Your task to perform on an android device: When is my next meeting? Image 0: 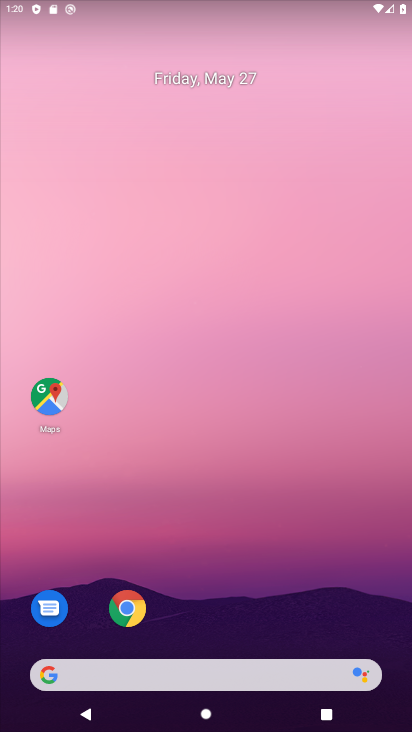
Step 0: drag from (367, 624) to (308, 120)
Your task to perform on an android device: When is my next meeting? Image 1: 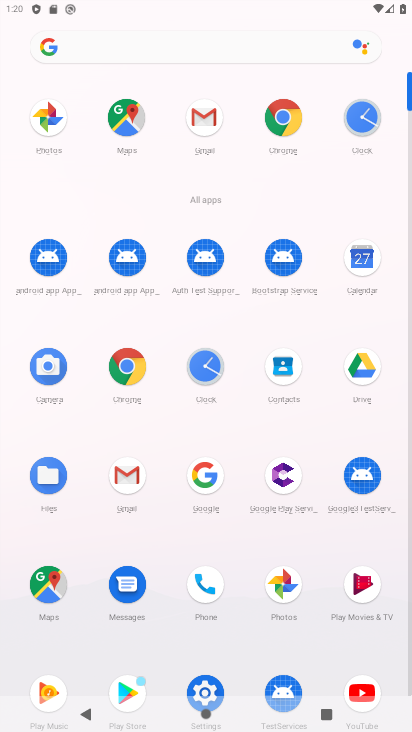
Step 1: click (411, 684)
Your task to perform on an android device: When is my next meeting? Image 2: 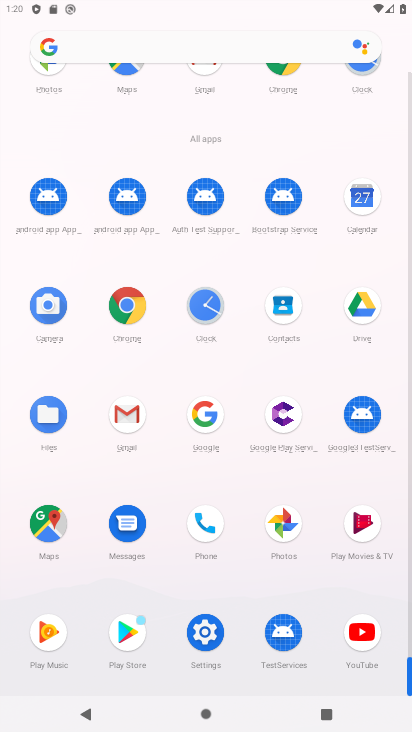
Step 2: click (361, 195)
Your task to perform on an android device: When is my next meeting? Image 3: 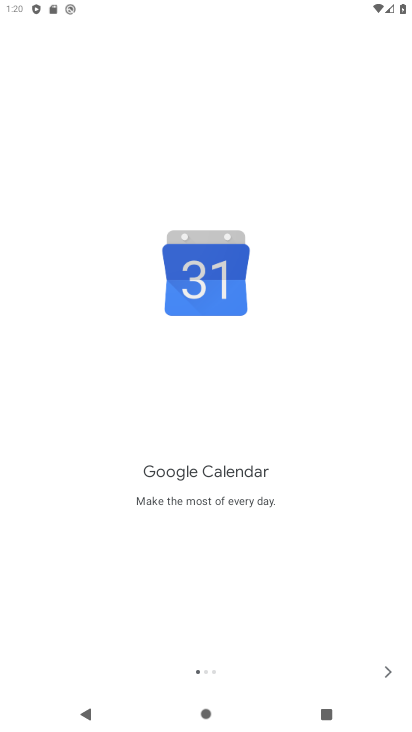
Step 3: click (384, 670)
Your task to perform on an android device: When is my next meeting? Image 4: 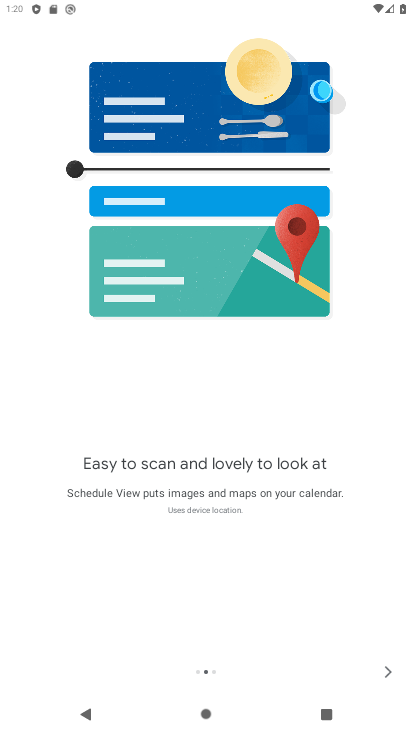
Step 4: click (384, 670)
Your task to perform on an android device: When is my next meeting? Image 5: 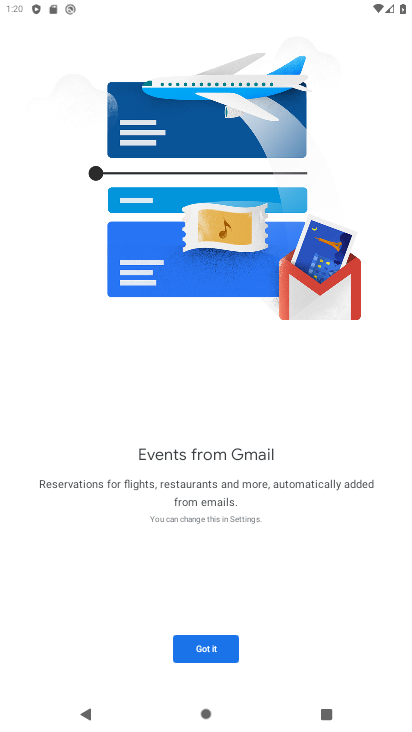
Step 5: click (193, 645)
Your task to perform on an android device: When is my next meeting? Image 6: 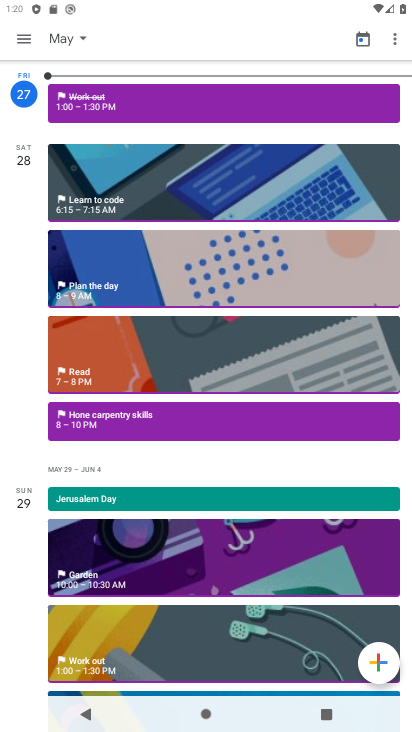
Step 6: click (24, 40)
Your task to perform on an android device: When is my next meeting? Image 7: 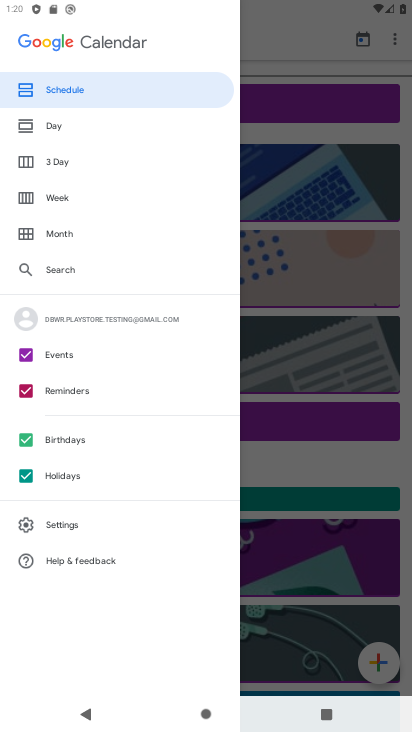
Step 7: drag from (307, 584) to (309, 84)
Your task to perform on an android device: When is my next meeting? Image 8: 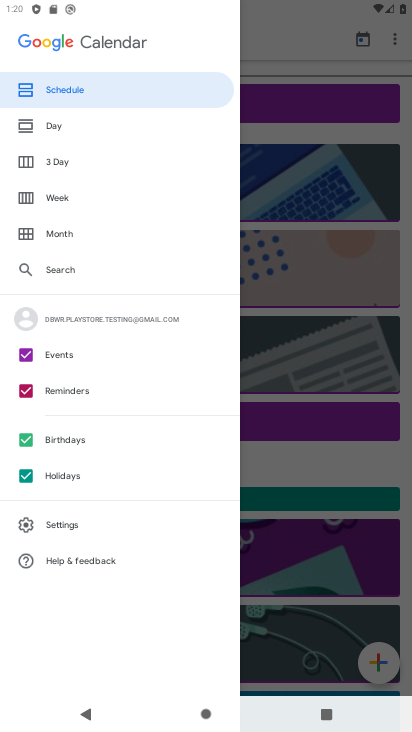
Step 8: drag from (273, 515) to (290, 83)
Your task to perform on an android device: When is my next meeting? Image 9: 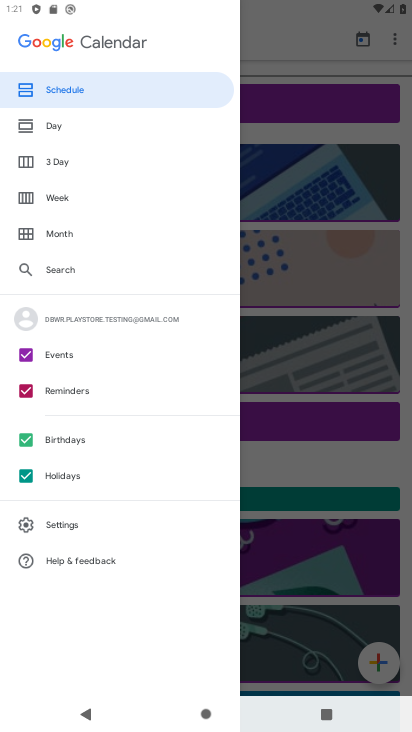
Step 9: click (80, 82)
Your task to perform on an android device: When is my next meeting? Image 10: 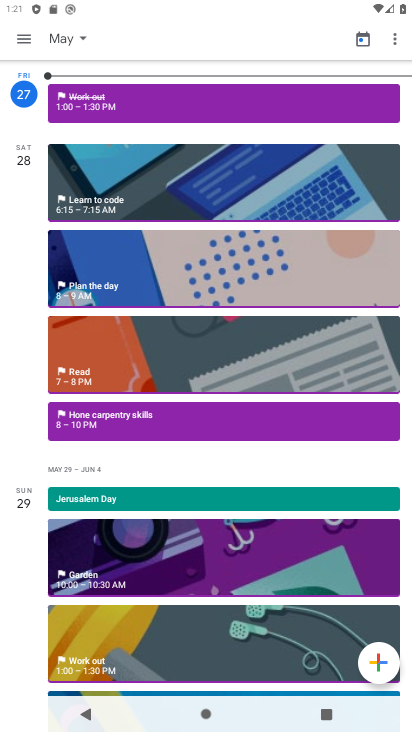
Step 10: task complete